Your task to perform on an android device: turn on translation in the chrome app Image 0: 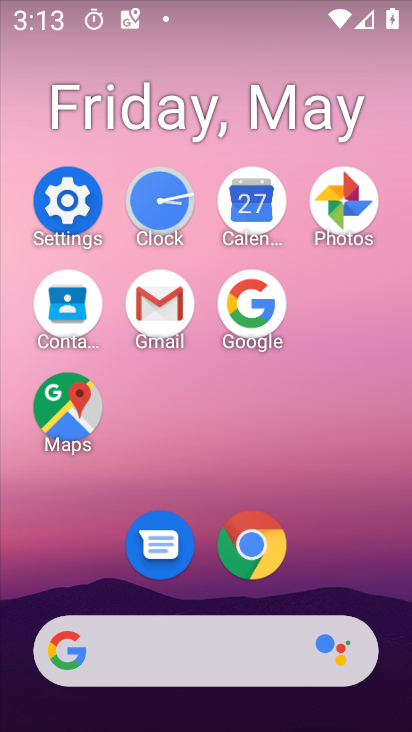
Step 0: click (281, 541)
Your task to perform on an android device: turn on translation in the chrome app Image 1: 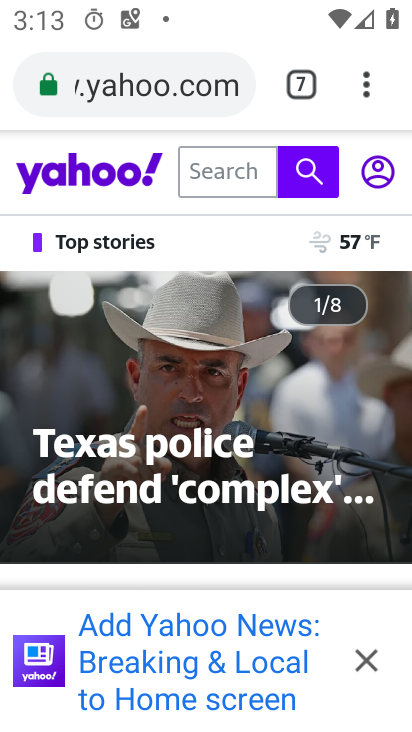
Step 1: click (378, 87)
Your task to perform on an android device: turn on translation in the chrome app Image 2: 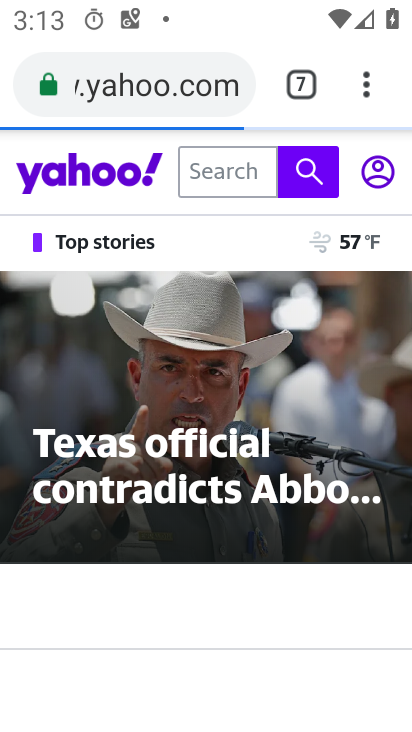
Step 2: click (372, 91)
Your task to perform on an android device: turn on translation in the chrome app Image 3: 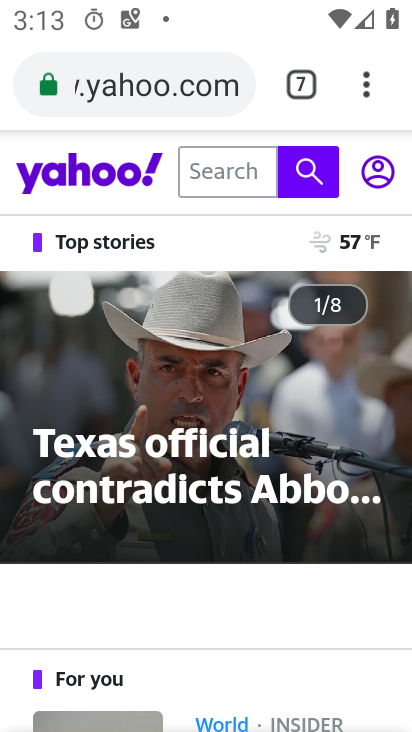
Step 3: click (375, 91)
Your task to perform on an android device: turn on translation in the chrome app Image 4: 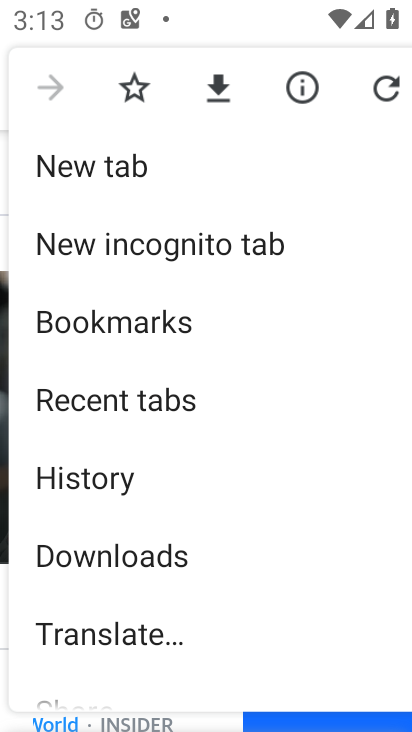
Step 4: drag from (186, 601) to (233, 203)
Your task to perform on an android device: turn on translation in the chrome app Image 5: 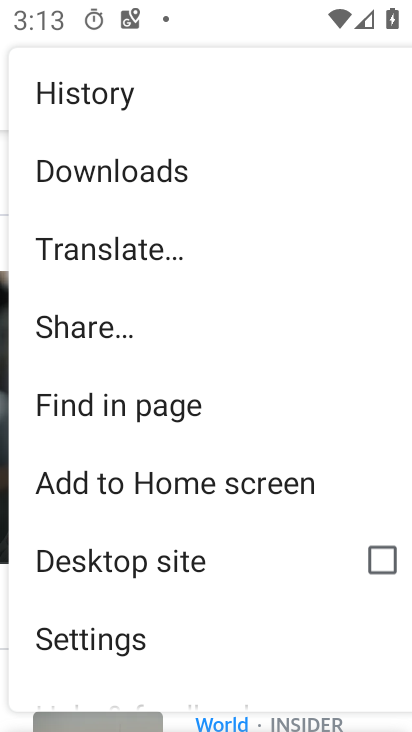
Step 5: click (124, 631)
Your task to perform on an android device: turn on translation in the chrome app Image 6: 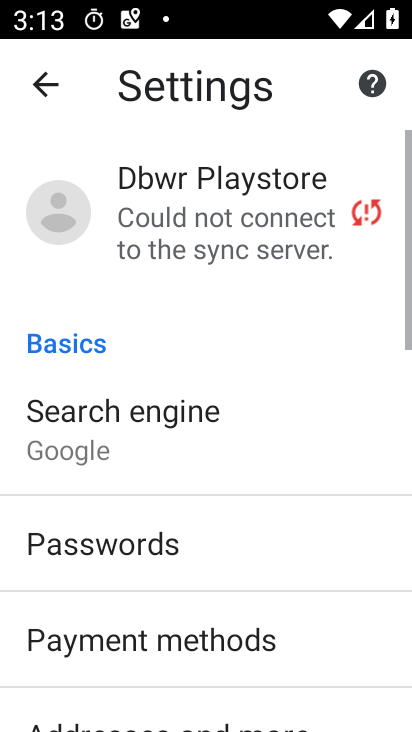
Step 6: drag from (250, 543) to (275, 163)
Your task to perform on an android device: turn on translation in the chrome app Image 7: 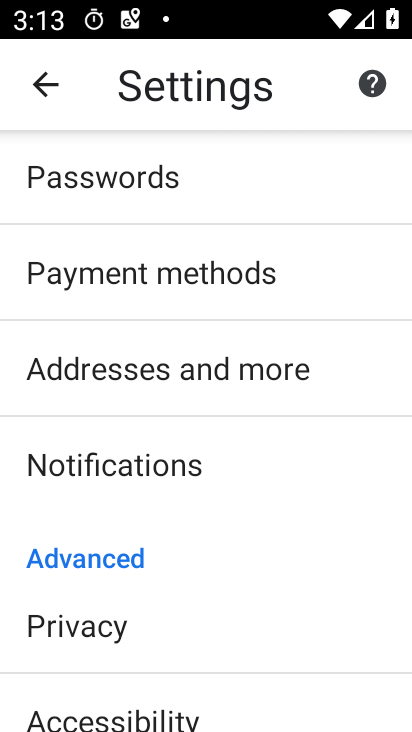
Step 7: drag from (223, 584) to (246, 62)
Your task to perform on an android device: turn on translation in the chrome app Image 8: 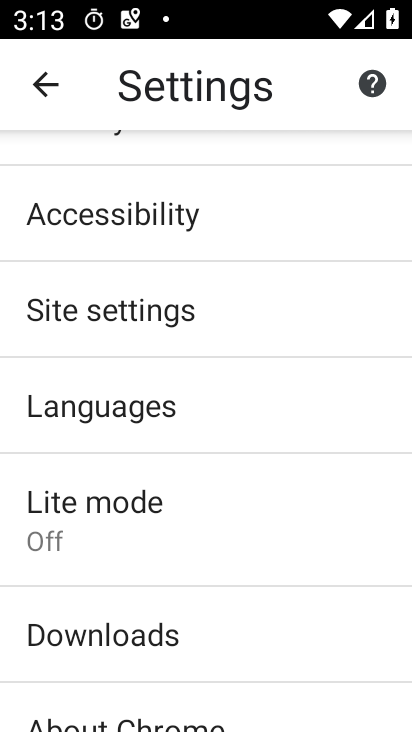
Step 8: click (206, 504)
Your task to perform on an android device: turn on translation in the chrome app Image 9: 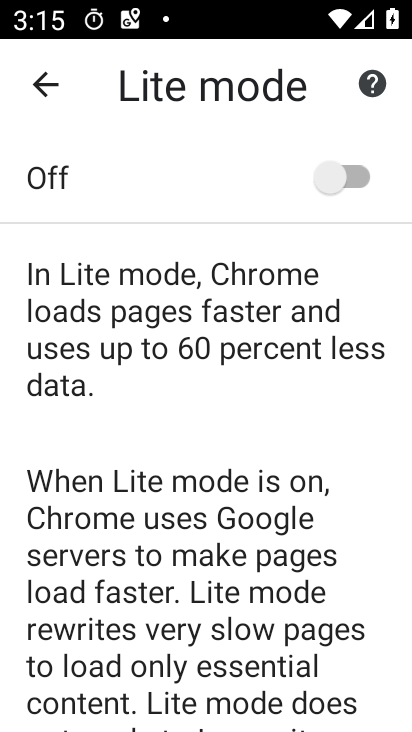
Step 9: press home button
Your task to perform on an android device: turn on translation in the chrome app Image 10: 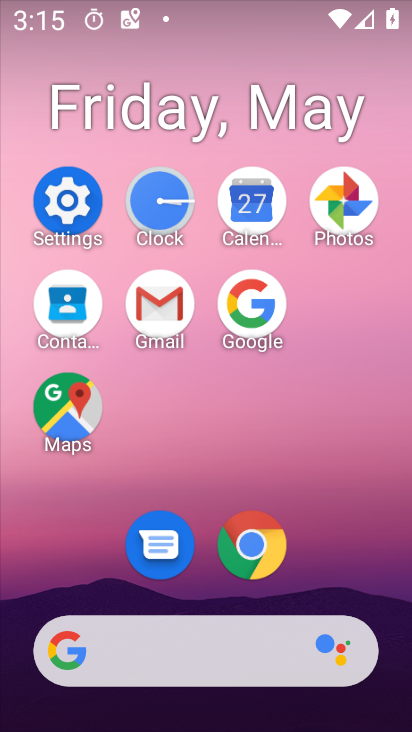
Step 10: click (257, 533)
Your task to perform on an android device: turn on translation in the chrome app Image 11: 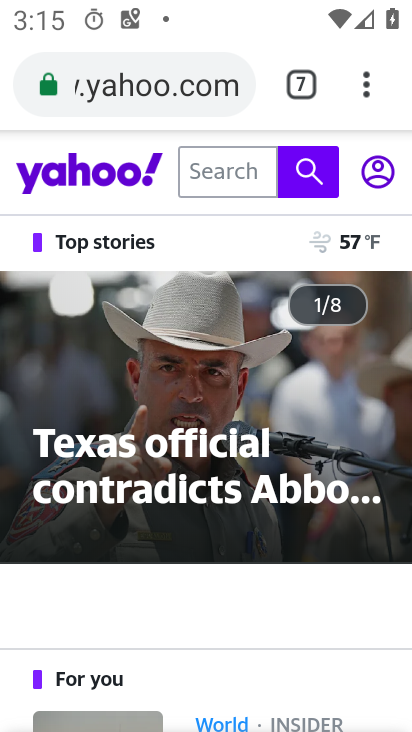
Step 11: click (379, 96)
Your task to perform on an android device: turn on translation in the chrome app Image 12: 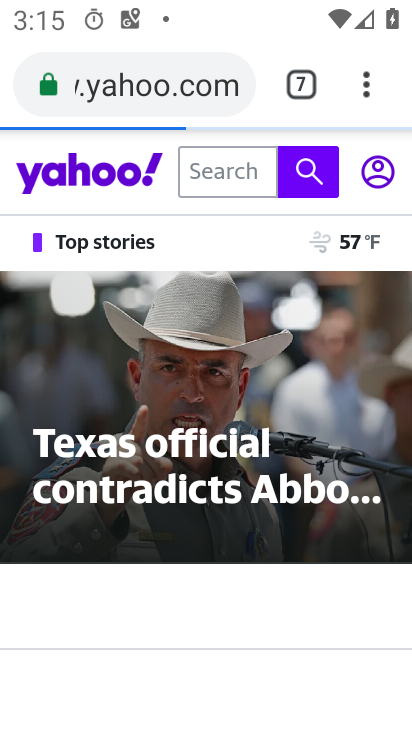
Step 12: click (373, 59)
Your task to perform on an android device: turn on translation in the chrome app Image 13: 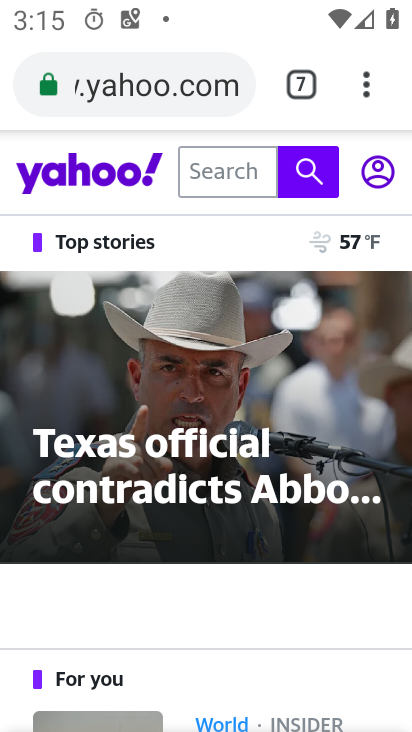
Step 13: click (367, 80)
Your task to perform on an android device: turn on translation in the chrome app Image 14: 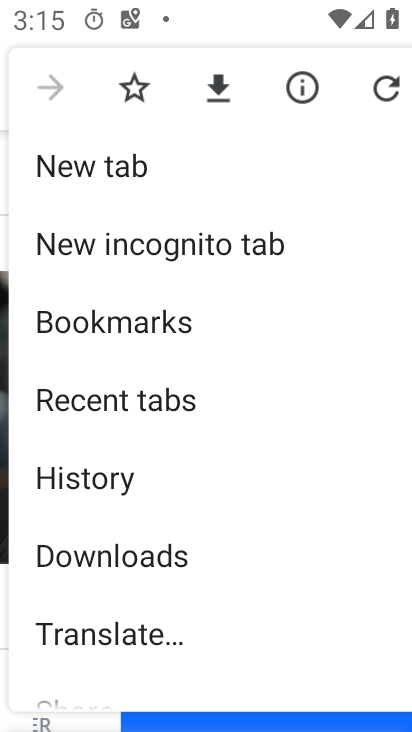
Step 14: drag from (184, 568) to (244, 147)
Your task to perform on an android device: turn on translation in the chrome app Image 15: 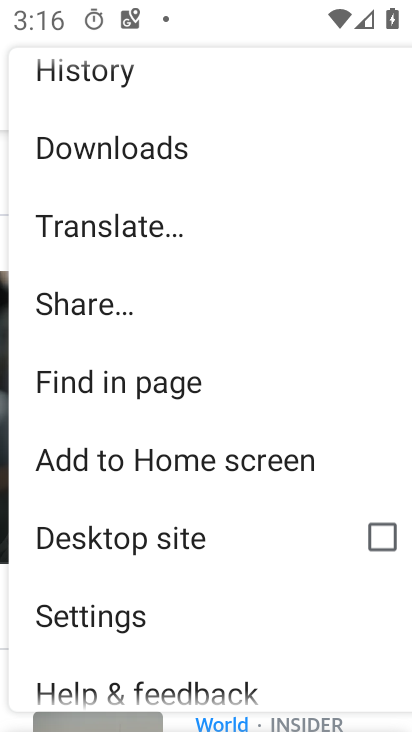
Step 15: click (151, 609)
Your task to perform on an android device: turn on translation in the chrome app Image 16: 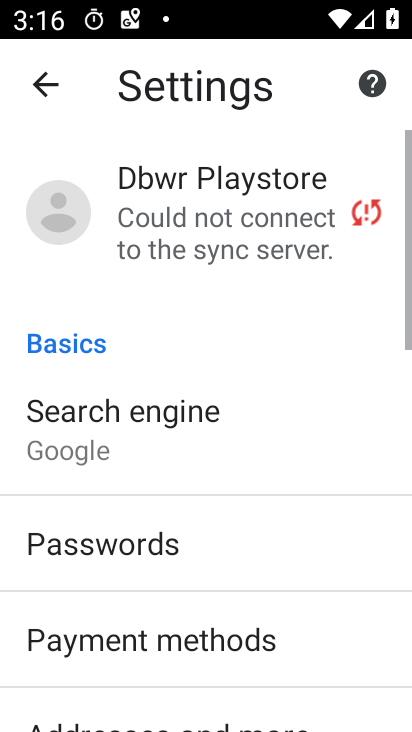
Step 16: drag from (201, 589) to (256, 214)
Your task to perform on an android device: turn on translation in the chrome app Image 17: 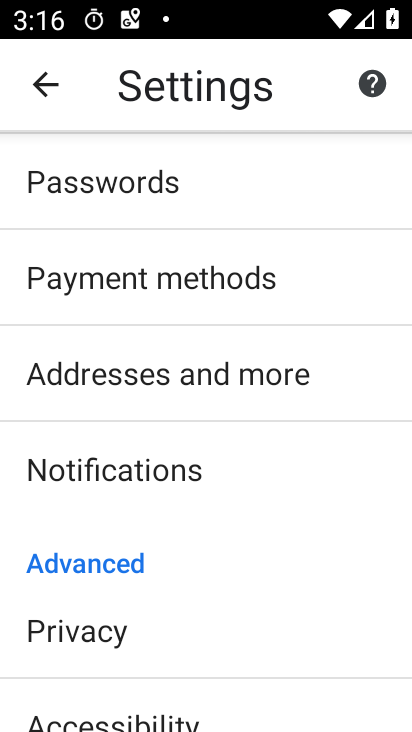
Step 17: drag from (206, 496) to (275, 114)
Your task to perform on an android device: turn on translation in the chrome app Image 18: 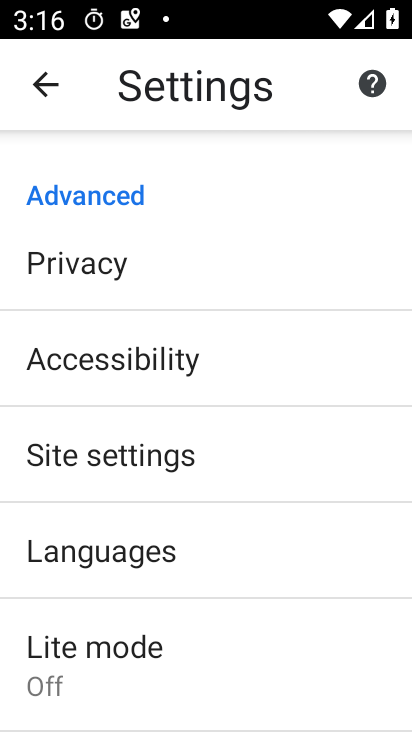
Step 18: click (201, 532)
Your task to perform on an android device: turn on translation in the chrome app Image 19: 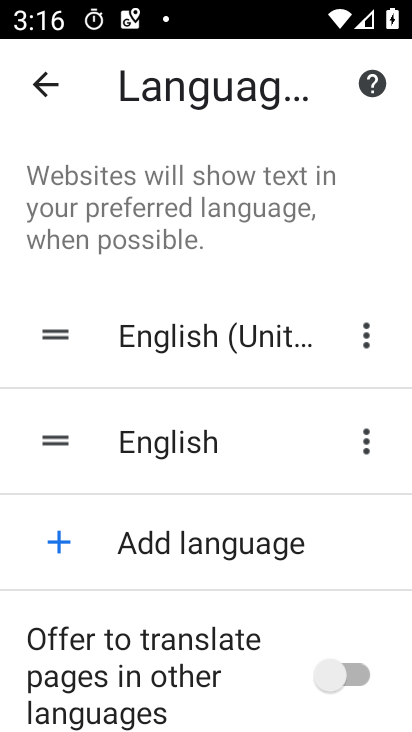
Step 19: click (352, 676)
Your task to perform on an android device: turn on translation in the chrome app Image 20: 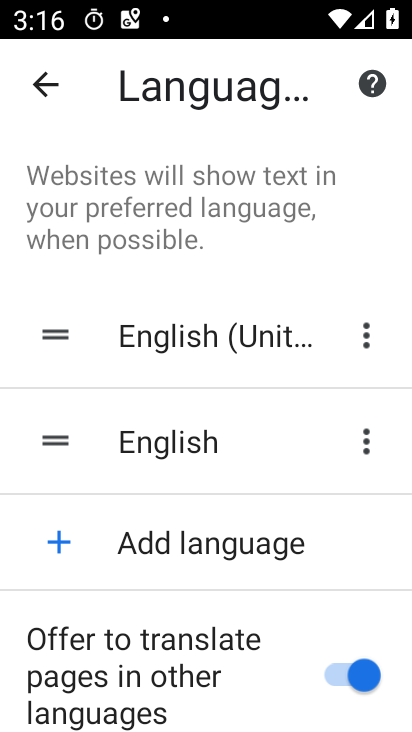
Step 20: task complete